Your task to perform on an android device: Open Youtube and go to the subscriptions tab Image 0: 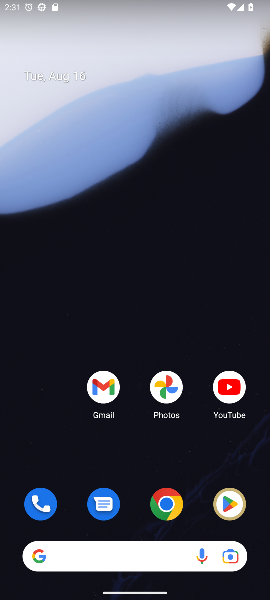
Step 0: click (227, 386)
Your task to perform on an android device: Open Youtube and go to the subscriptions tab Image 1: 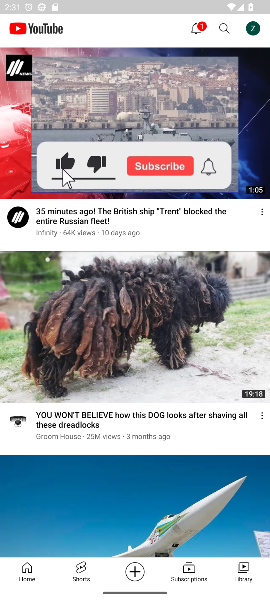
Step 1: click (185, 571)
Your task to perform on an android device: Open Youtube and go to the subscriptions tab Image 2: 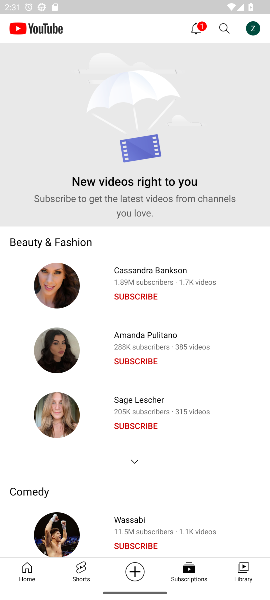
Step 2: task complete